Your task to perform on an android device: find which apps use the phone's location Image 0: 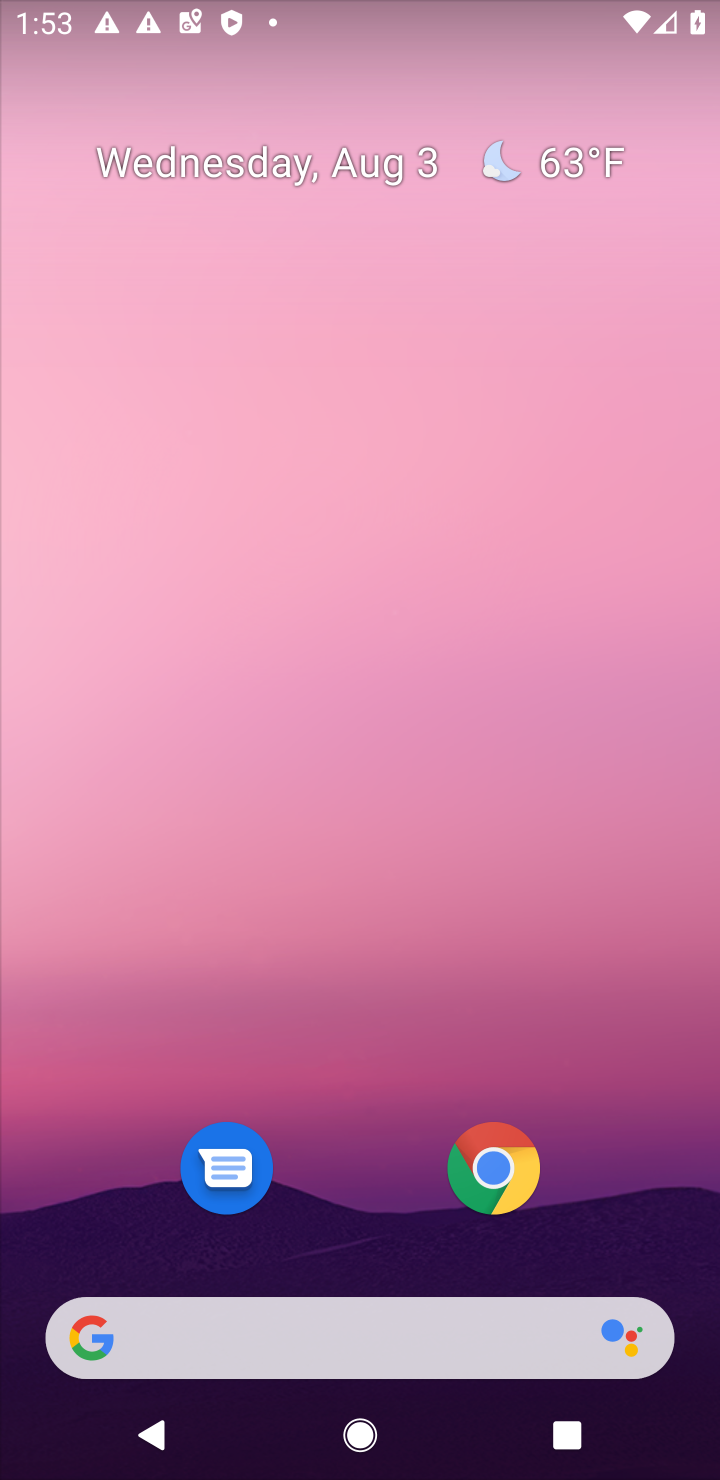
Step 0: press home button
Your task to perform on an android device: find which apps use the phone's location Image 1: 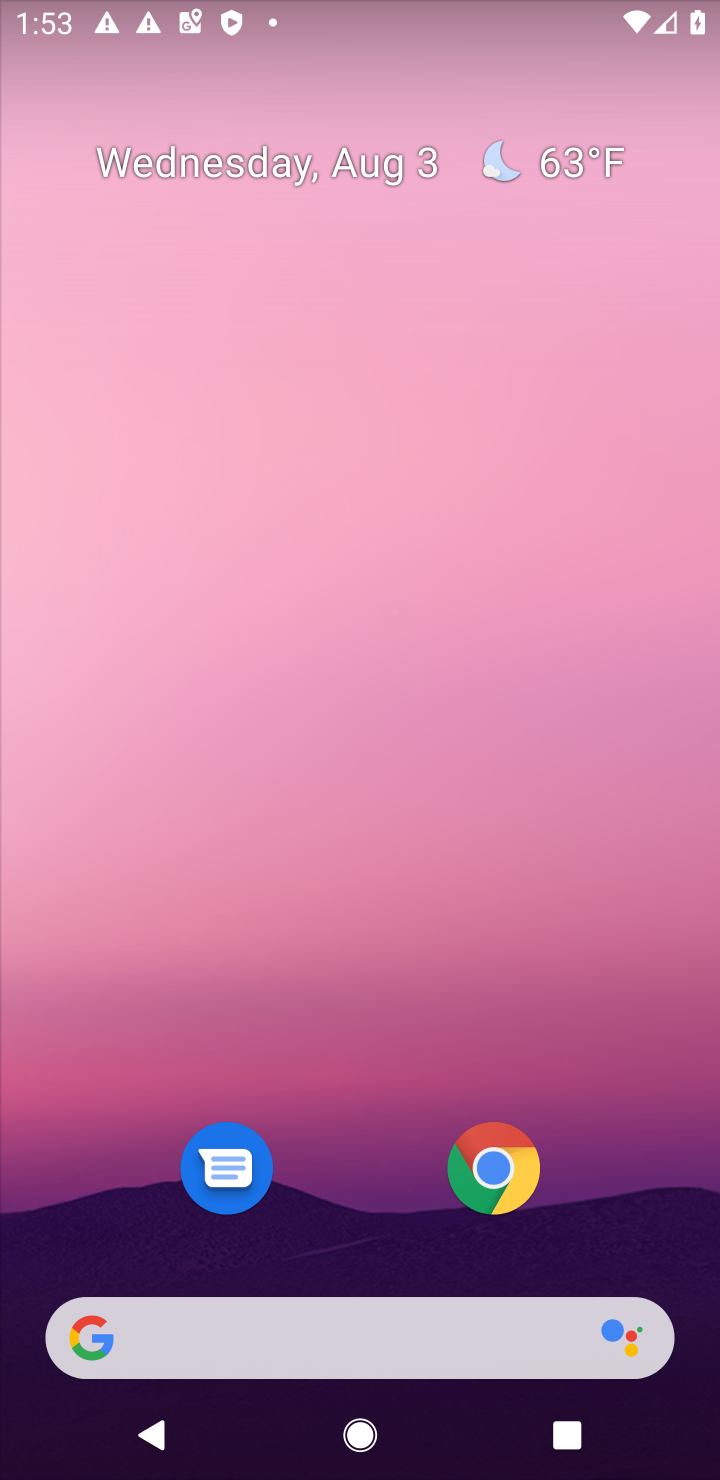
Step 1: drag from (696, 1270) to (579, 392)
Your task to perform on an android device: find which apps use the phone's location Image 2: 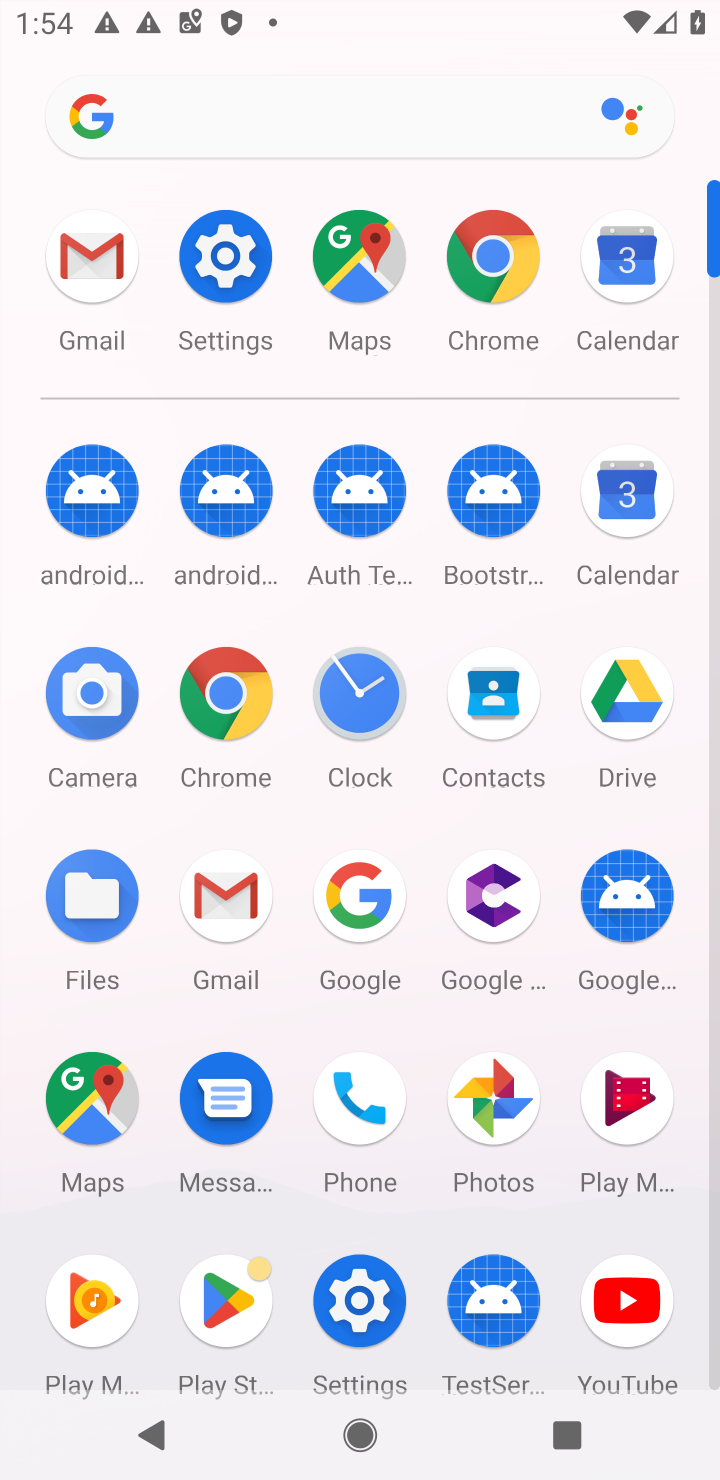
Step 2: click (357, 1300)
Your task to perform on an android device: find which apps use the phone's location Image 3: 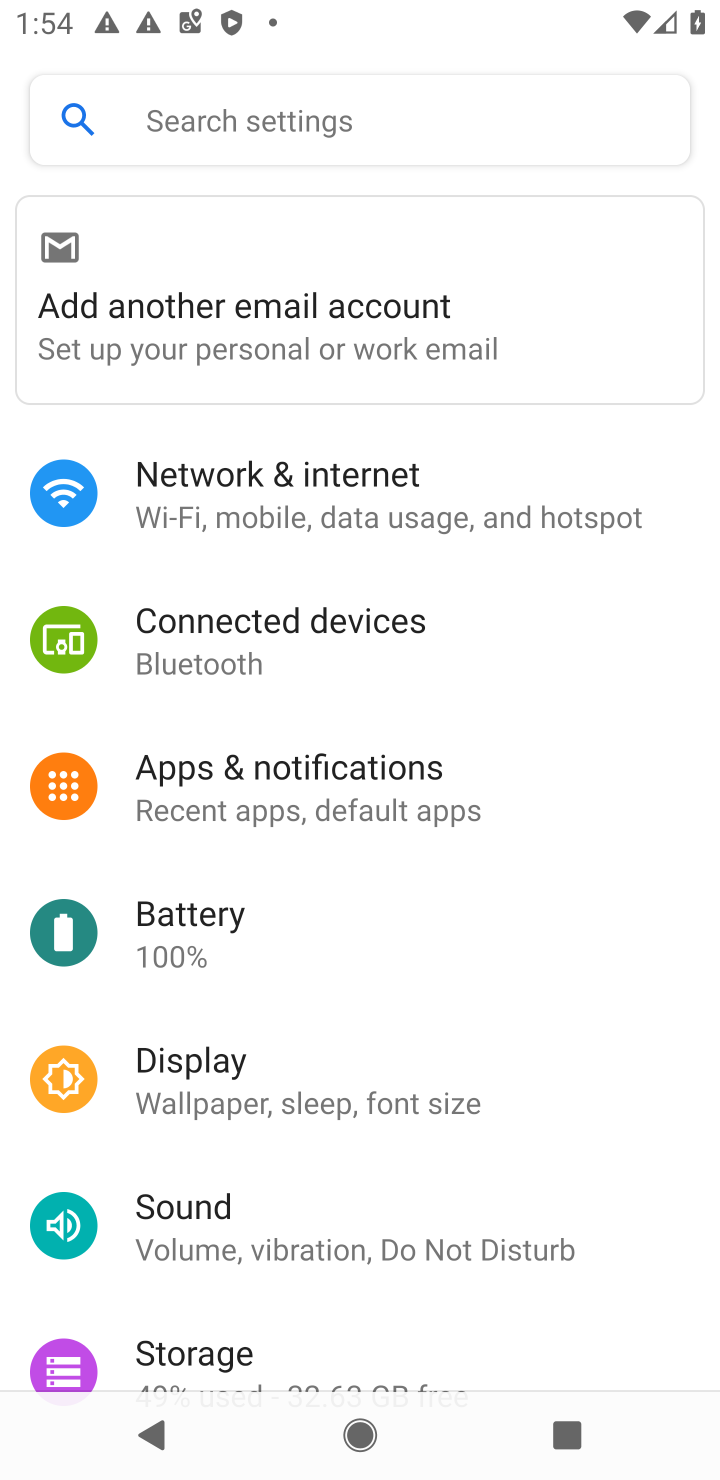
Step 3: drag from (609, 1266) to (580, 554)
Your task to perform on an android device: find which apps use the phone's location Image 4: 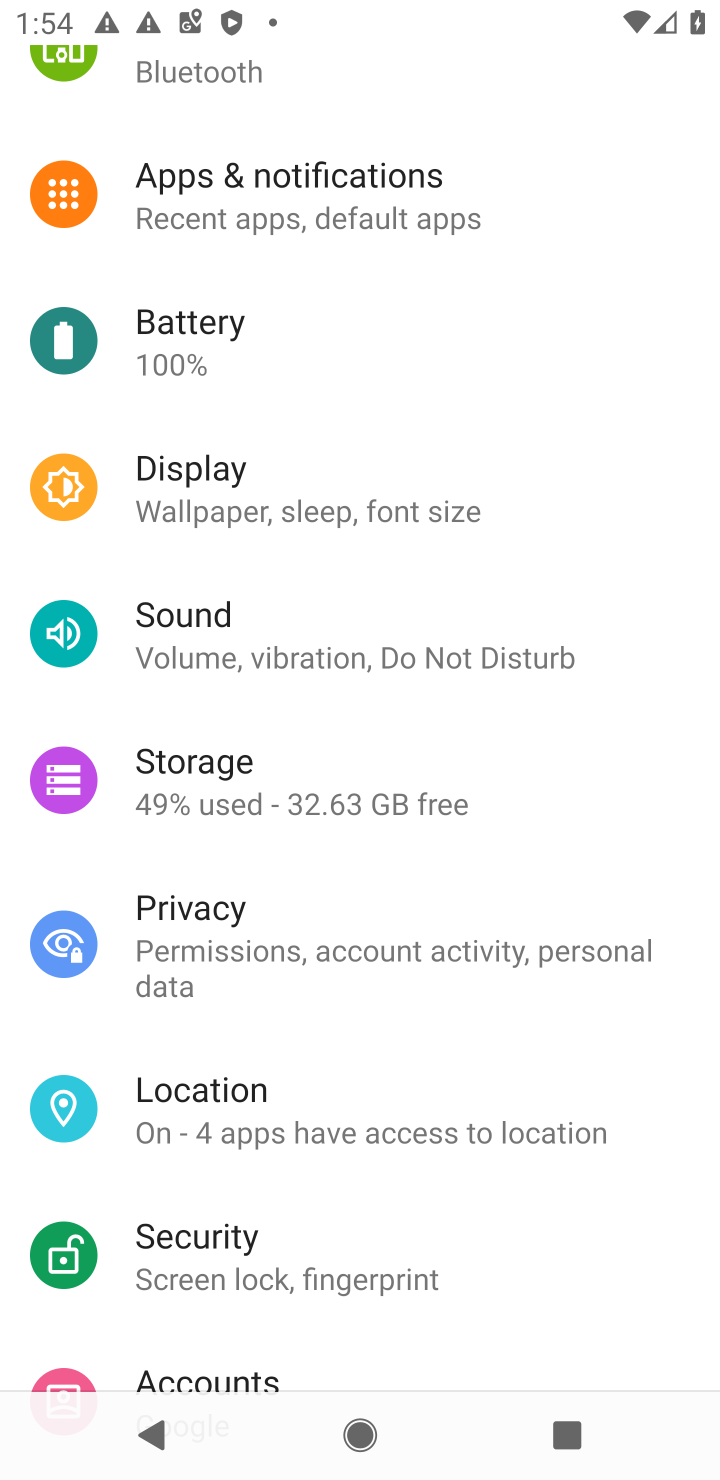
Step 4: click (204, 1093)
Your task to perform on an android device: find which apps use the phone's location Image 5: 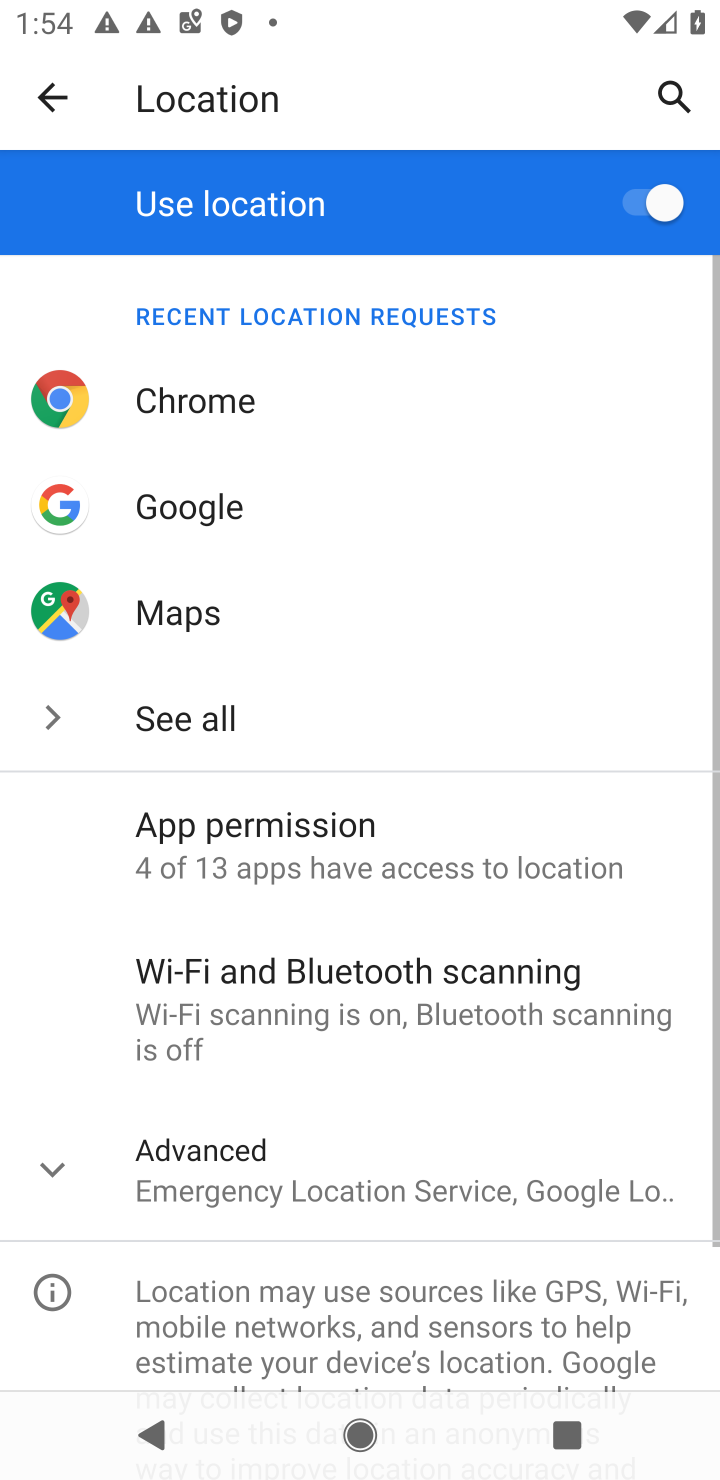
Step 5: click (215, 835)
Your task to perform on an android device: find which apps use the phone's location Image 6: 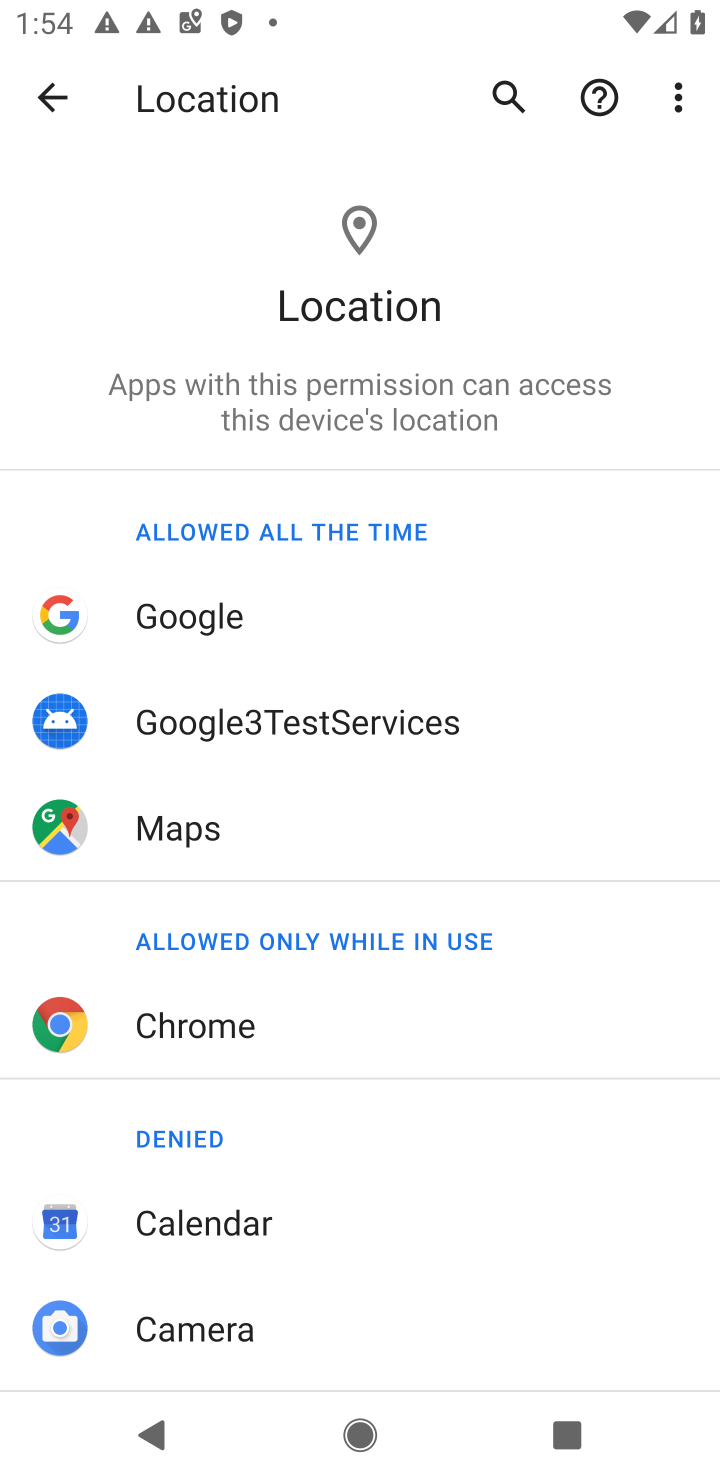
Step 6: drag from (431, 1221) to (433, 318)
Your task to perform on an android device: find which apps use the phone's location Image 7: 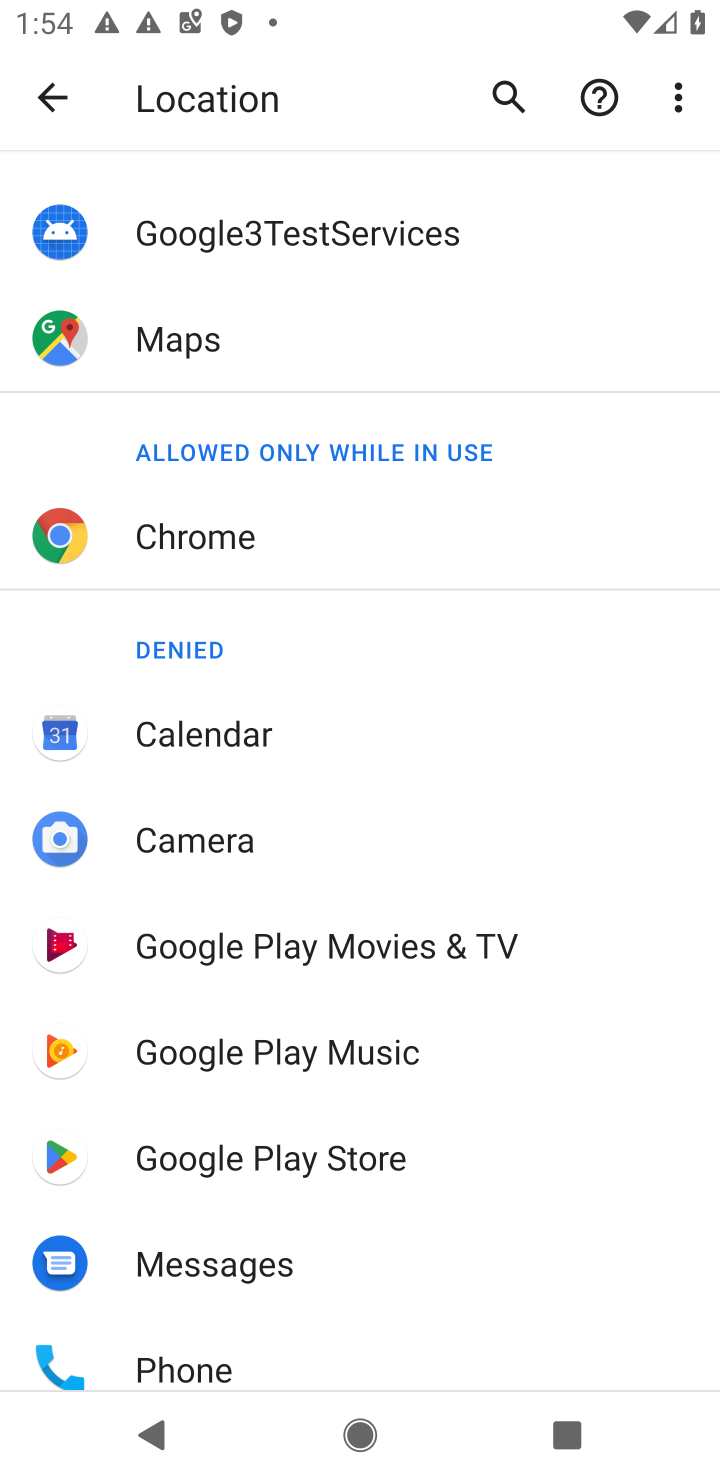
Step 7: drag from (387, 1321) to (397, 398)
Your task to perform on an android device: find which apps use the phone's location Image 8: 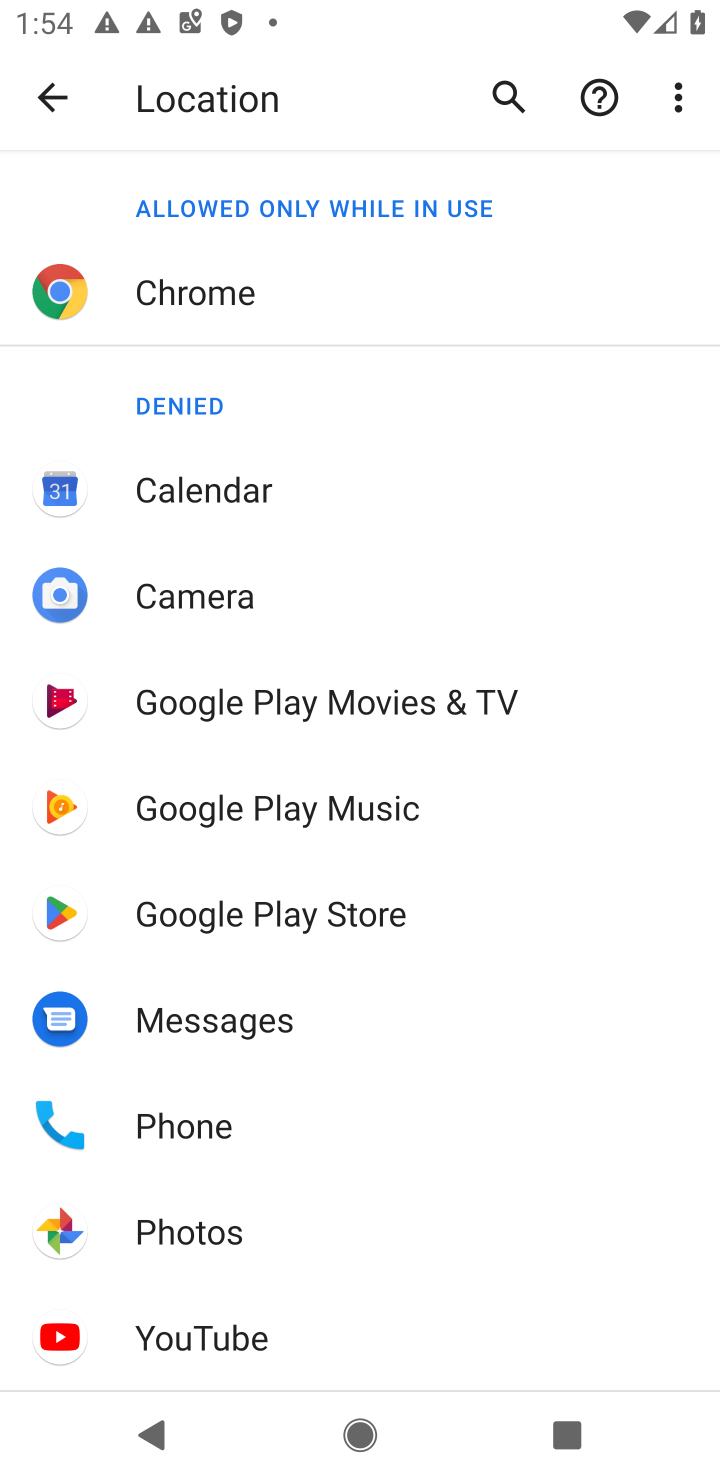
Step 8: click (181, 1331)
Your task to perform on an android device: find which apps use the phone's location Image 9: 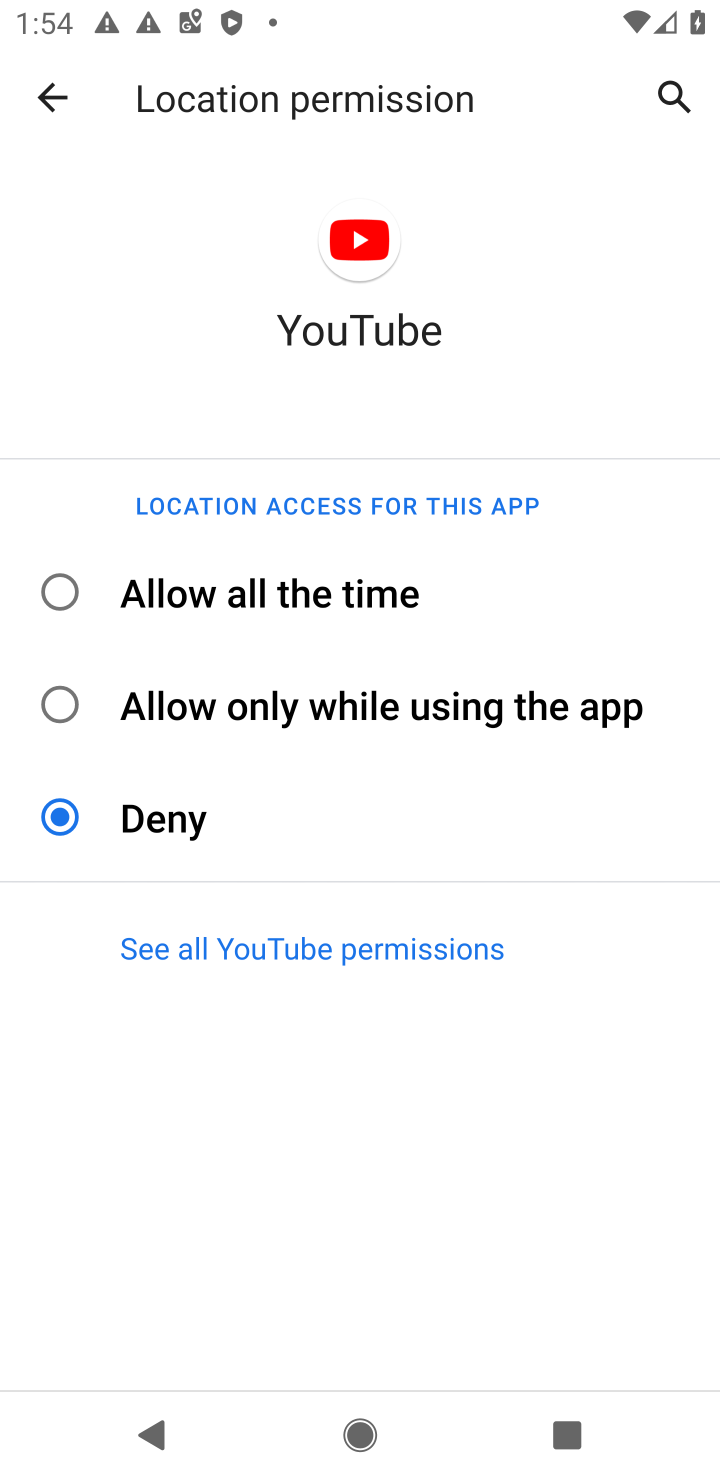
Step 9: task complete